Your task to perform on an android device: find snoozed emails in the gmail app Image 0: 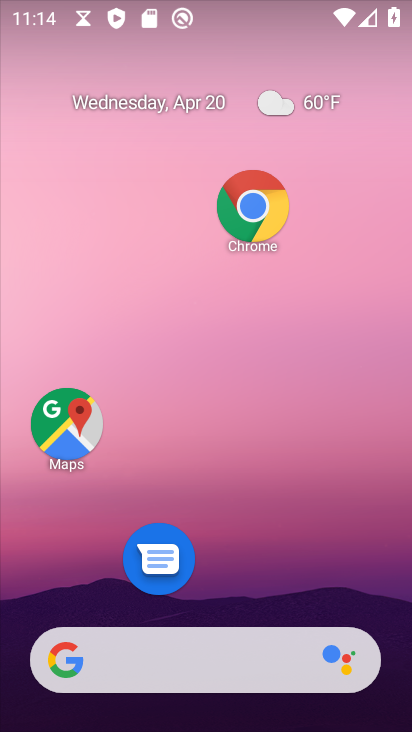
Step 0: drag from (348, 602) to (312, 32)
Your task to perform on an android device: find snoozed emails in the gmail app Image 1: 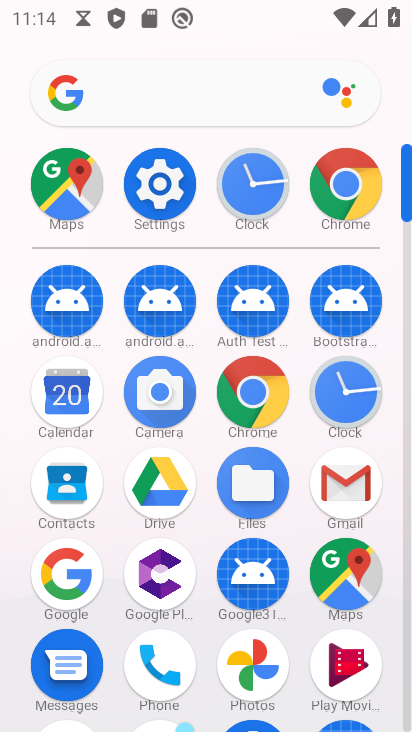
Step 1: click (335, 495)
Your task to perform on an android device: find snoozed emails in the gmail app Image 2: 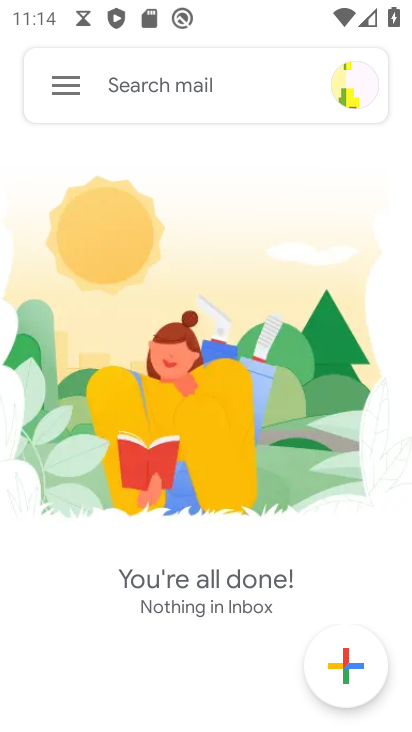
Step 2: click (62, 91)
Your task to perform on an android device: find snoozed emails in the gmail app Image 3: 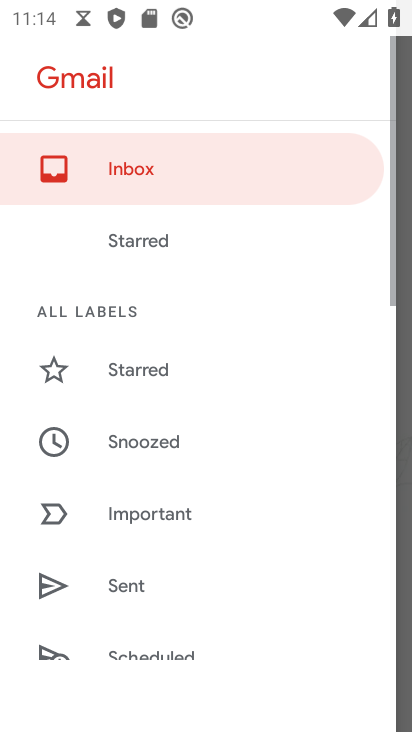
Step 3: drag from (228, 624) to (258, 288)
Your task to perform on an android device: find snoozed emails in the gmail app Image 4: 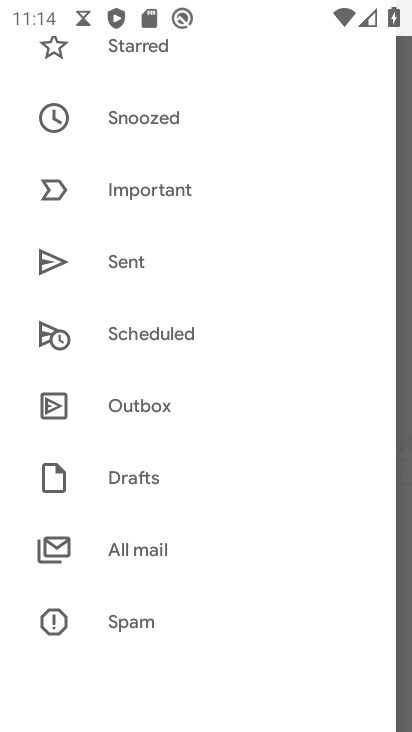
Step 4: click (143, 113)
Your task to perform on an android device: find snoozed emails in the gmail app Image 5: 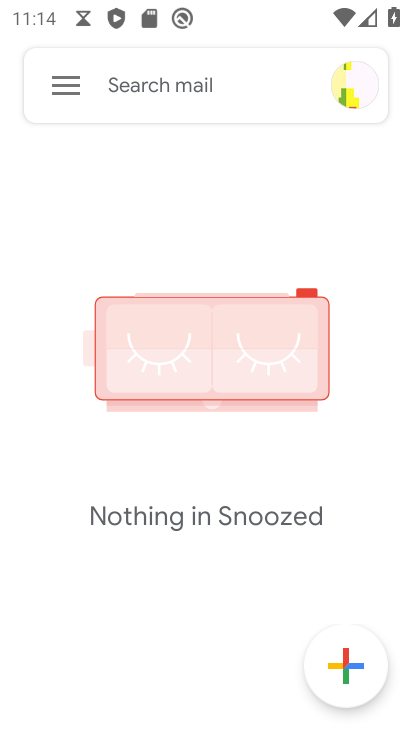
Step 5: task complete